Your task to perform on an android device: When is my next appointment? Image 0: 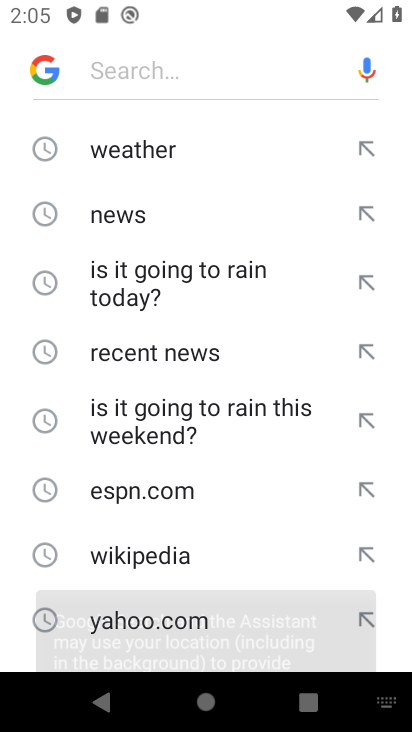
Step 0: press back button
Your task to perform on an android device: When is my next appointment? Image 1: 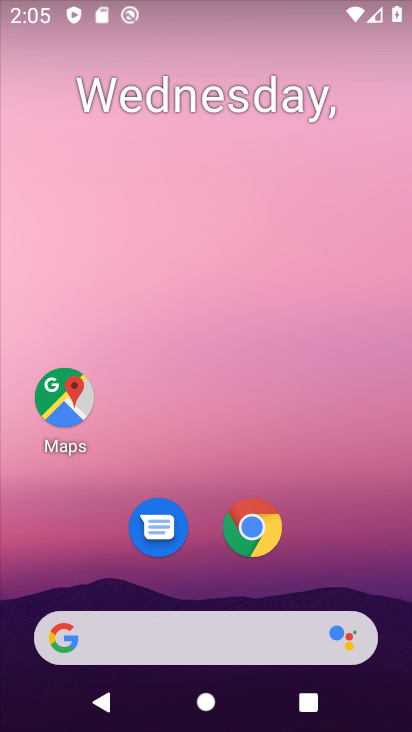
Step 1: drag from (340, 555) to (255, 148)
Your task to perform on an android device: When is my next appointment? Image 2: 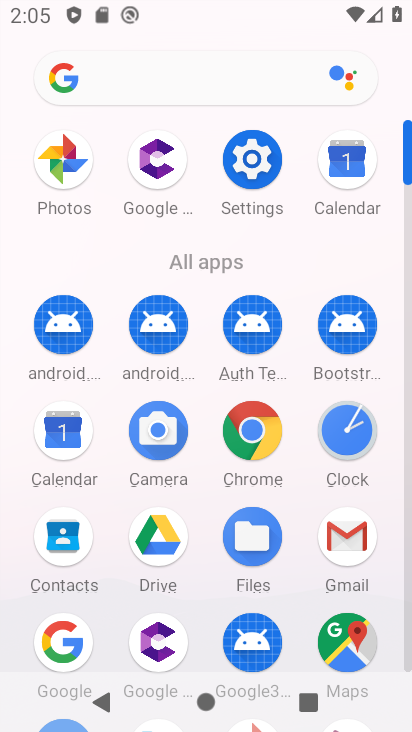
Step 2: click (70, 431)
Your task to perform on an android device: When is my next appointment? Image 3: 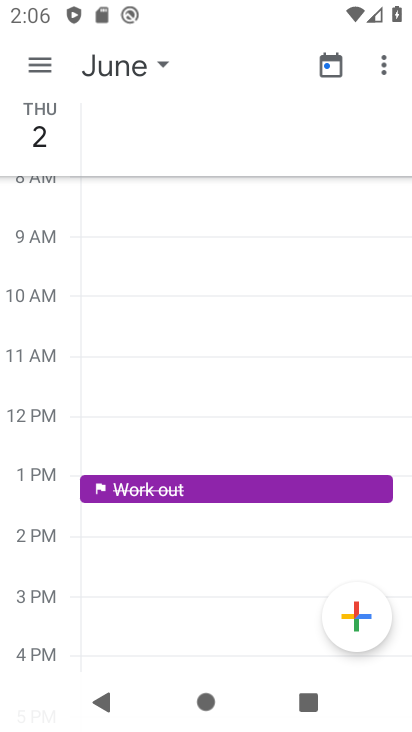
Step 3: click (162, 65)
Your task to perform on an android device: When is my next appointment? Image 4: 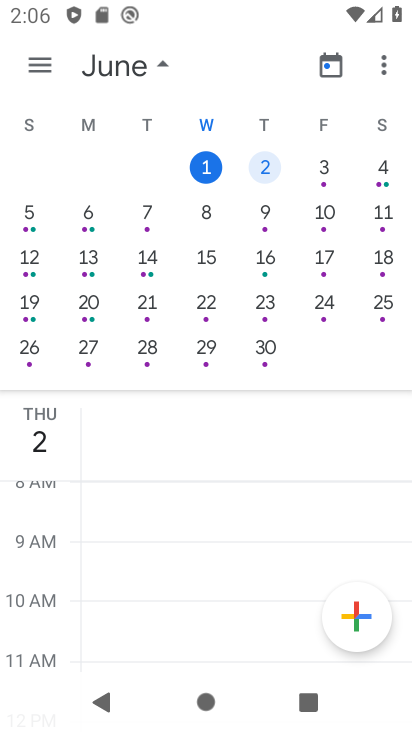
Step 4: click (336, 61)
Your task to perform on an android device: When is my next appointment? Image 5: 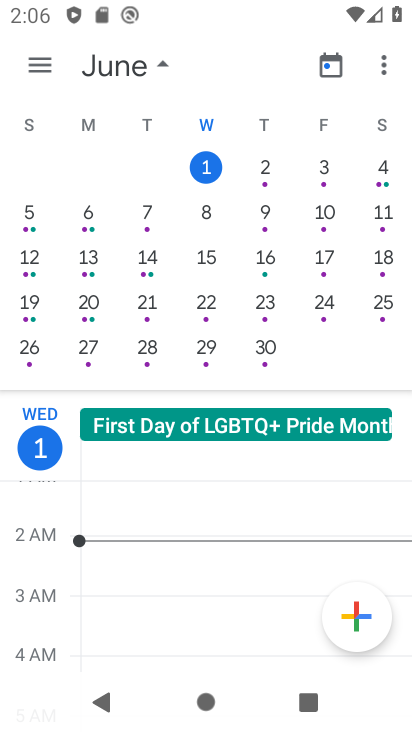
Step 5: click (261, 166)
Your task to perform on an android device: When is my next appointment? Image 6: 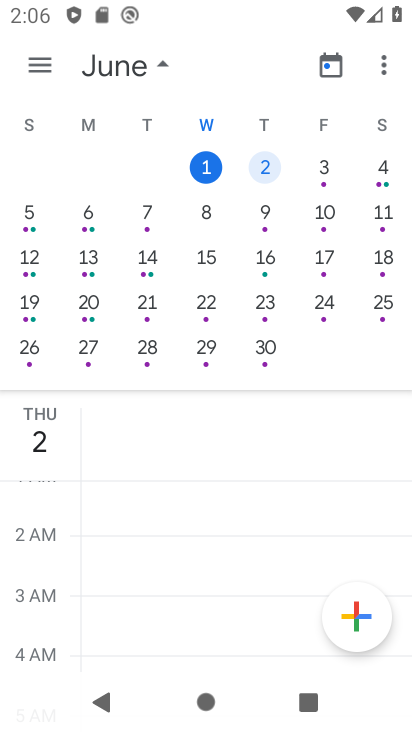
Step 6: click (38, 61)
Your task to perform on an android device: When is my next appointment? Image 7: 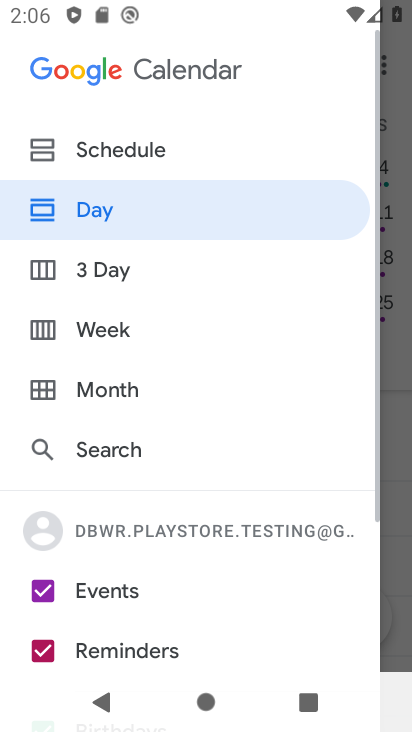
Step 7: click (104, 145)
Your task to perform on an android device: When is my next appointment? Image 8: 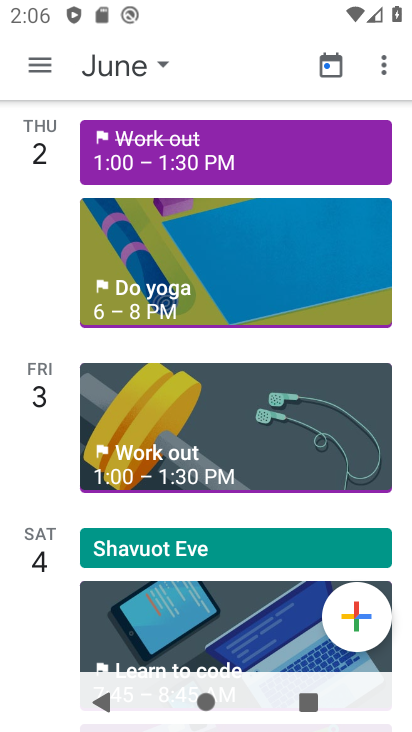
Step 8: task complete